Your task to perform on an android device: clear history in the chrome app Image 0: 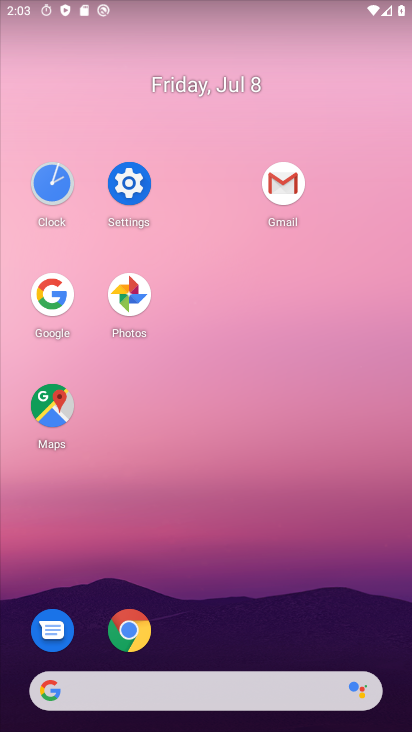
Step 0: click (133, 640)
Your task to perform on an android device: clear history in the chrome app Image 1: 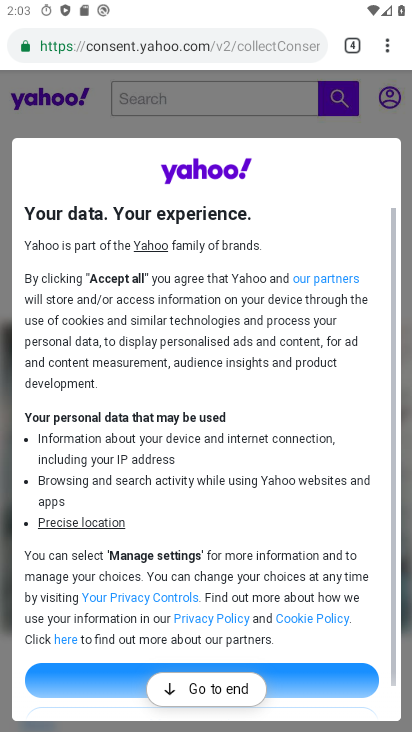
Step 1: click (392, 48)
Your task to perform on an android device: clear history in the chrome app Image 2: 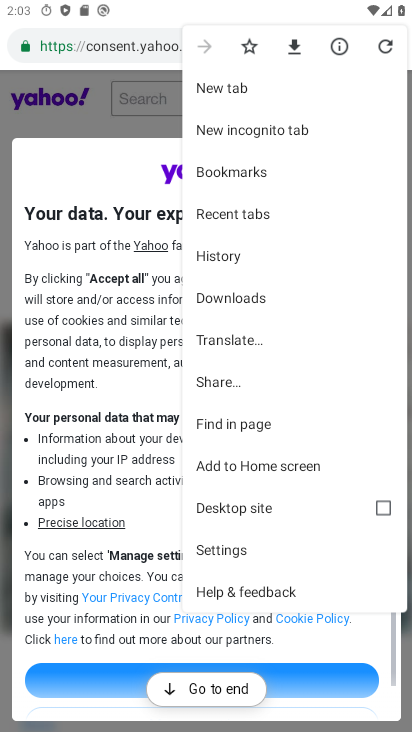
Step 2: click (238, 552)
Your task to perform on an android device: clear history in the chrome app Image 3: 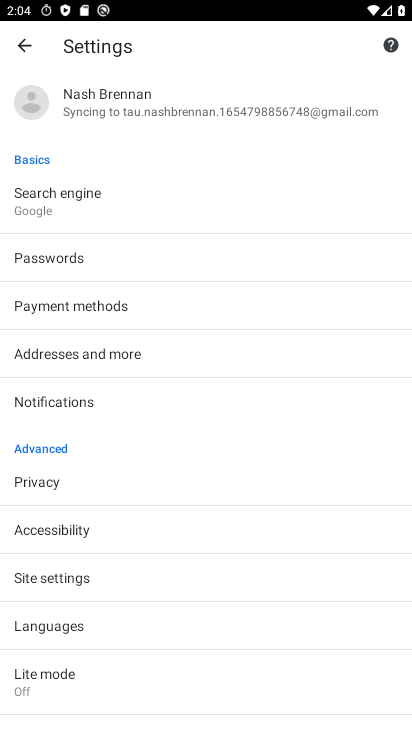
Step 3: drag from (173, 615) to (187, 325)
Your task to perform on an android device: clear history in the chrome app Image 4: 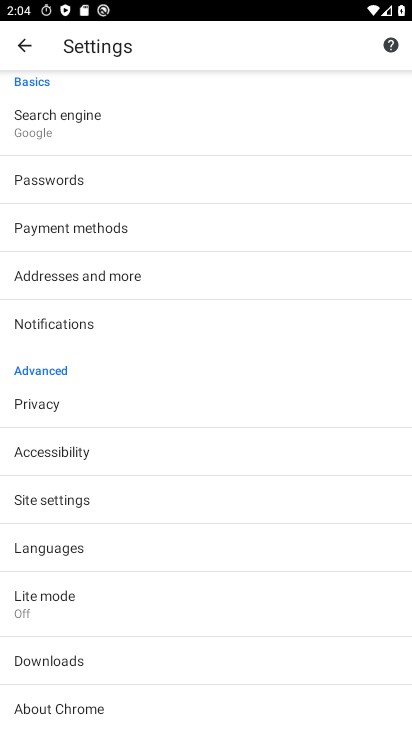
Step 4: click (137, 401)
Your task to perform on an android device: clear history in the chrome app Image 5: 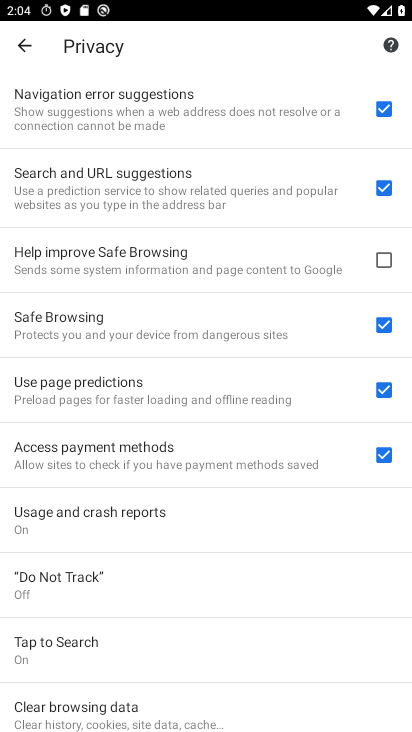
Step 5: click (139, 708)
Your task to perform on an android device: clear history in the chrome app Image 6: 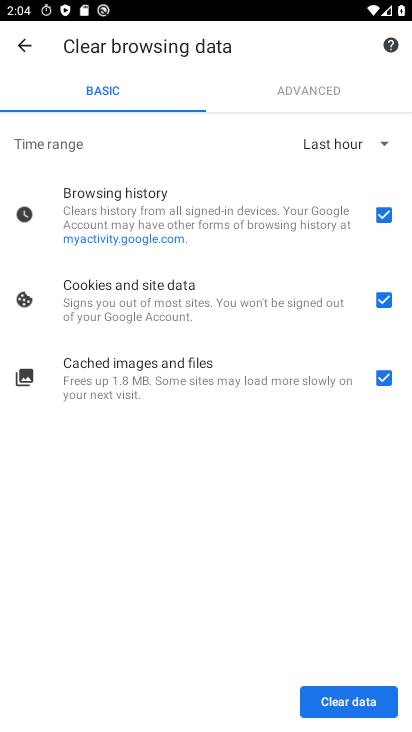
Step 6: click (326, 704)
Your task to perform on an android device: clear history in the chrome app Image 7: 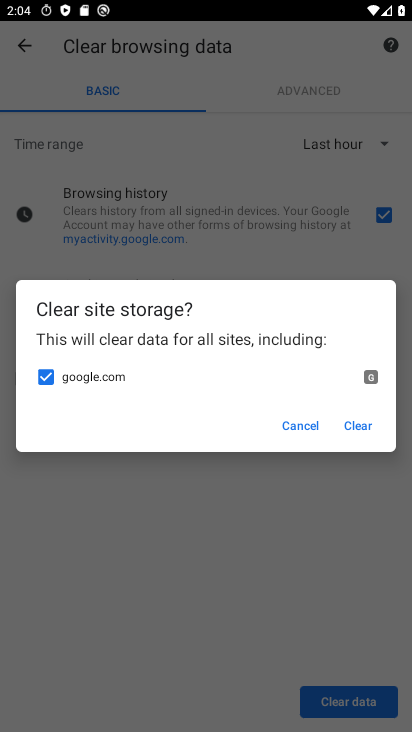
Step 7: click (353, 431)
Your task to perform on an android device: clear history in the chrome app Image 8: 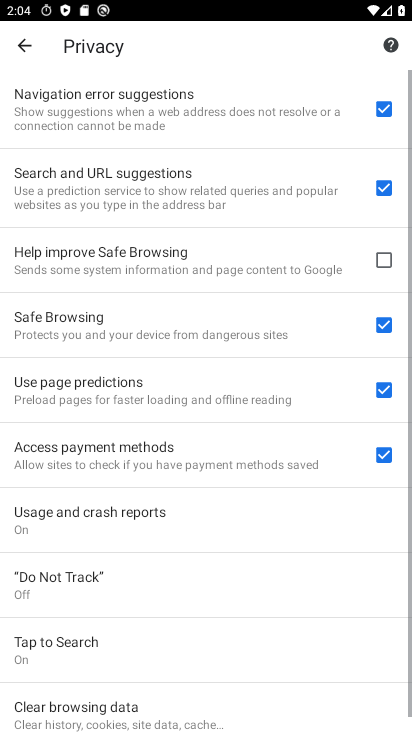
Step 8: task complete